Your task to perform on an android device: Open Google Maps Image 0: 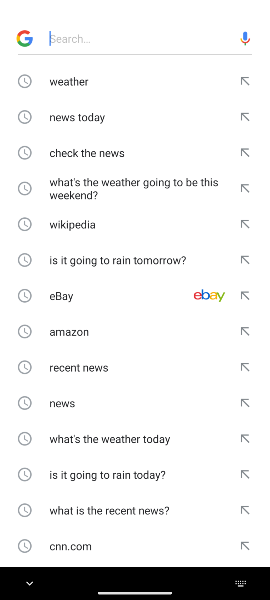
Step 0: drag from (134, 511) to (257, 154)
Your task to perform on an android device: Open Google Maps Image 1: 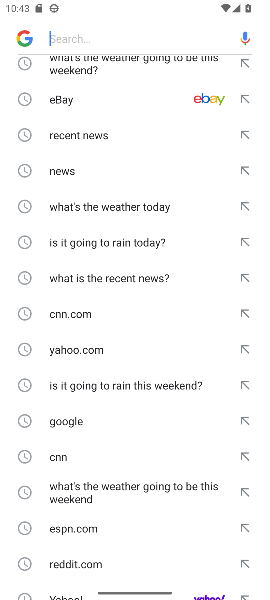
Step 1: press home button
Your task to perform on an android device: Open Google Maps Image 2: 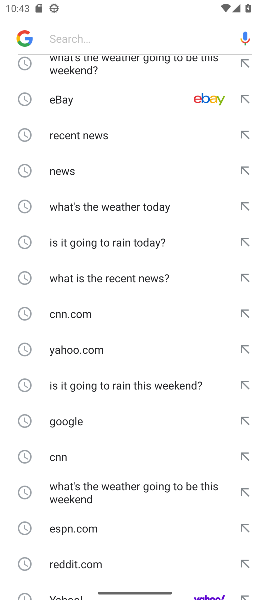
Step 2: drag from (257, 154) to (269, 418)
Your task to perform on an android device: Open Google Maps Image 3: 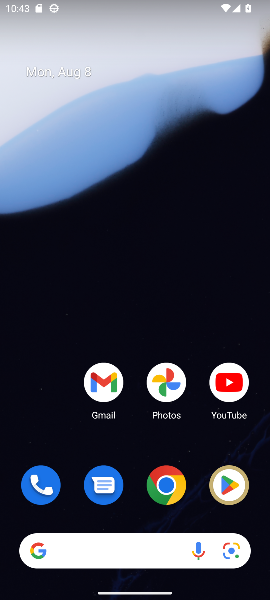
Step 3: drag from (136, 497) to (128, 120)
Your task to perform on an android device: Open Google Maps Image 4: 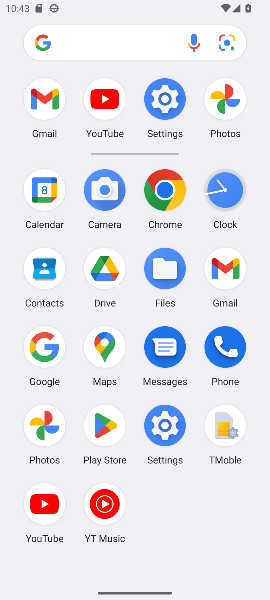
Step 4: click (103, 339)
Your task to perform on an android device: Open Google Maps Image 5: 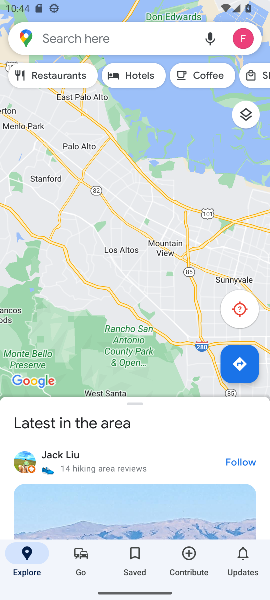
Step 5: task complete